Your task to perform on an android device: all mails in gmail Image 0: 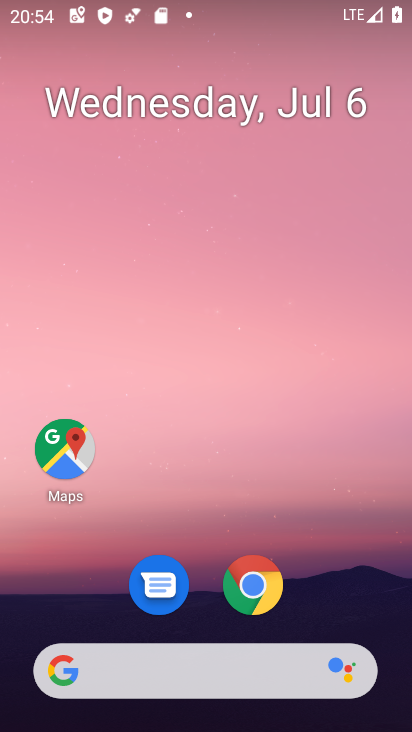
Step 0: drag from (212, 510) to (259, 34)
Your task to perform on an android device: all mails in gmail Image 1: 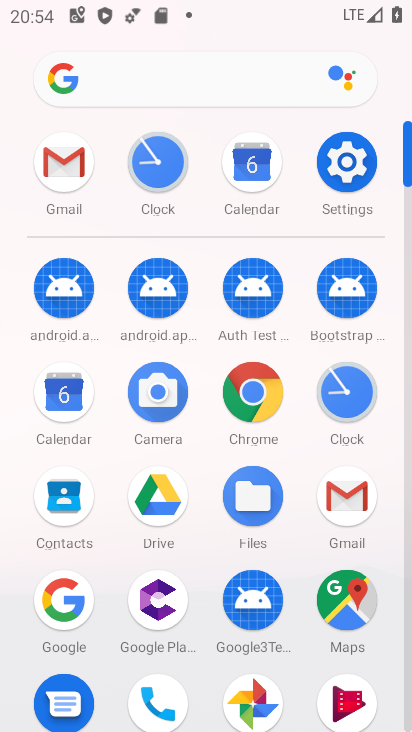
Step 1: click (61, 161)
Your task to perform on an android device: all mails in gmail Image 2: 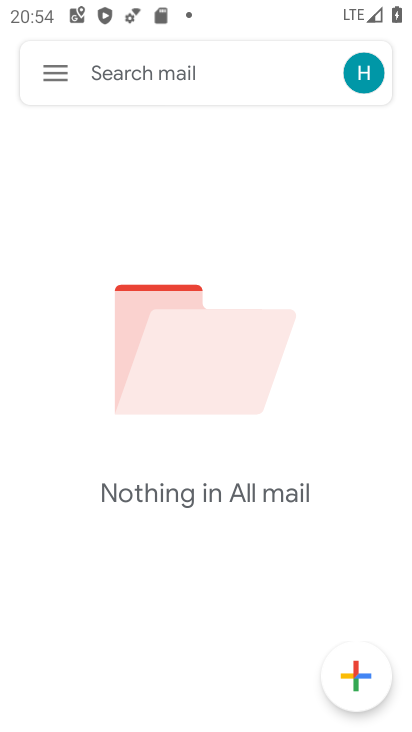
Step 2: task complete